Your task to perform on an android device: Is it going to rain this weekend? Image 0: 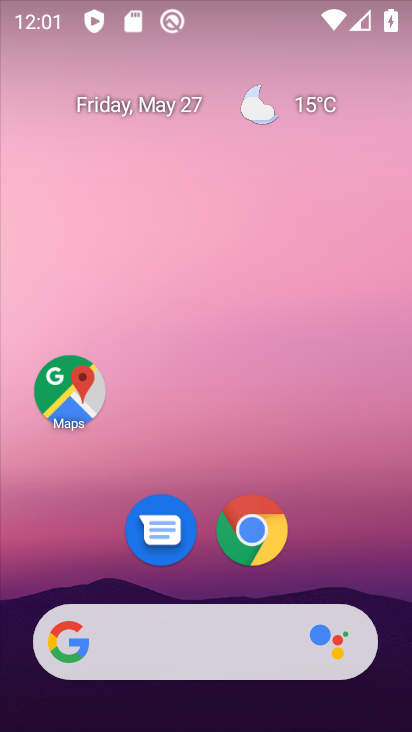
Step 0: click (285, 106)
Your task to perform on an android device: Is it going to rain this weekend? Image 1: 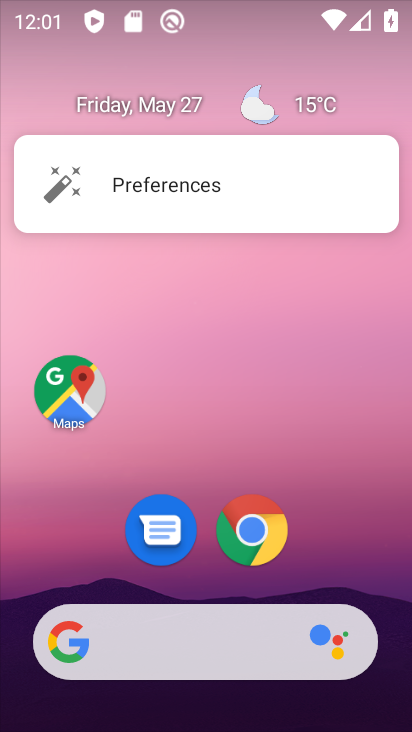
Step 1: click (293, 112)
Your task to perform on an android device: Is it going to rain this weekend? Image 2: 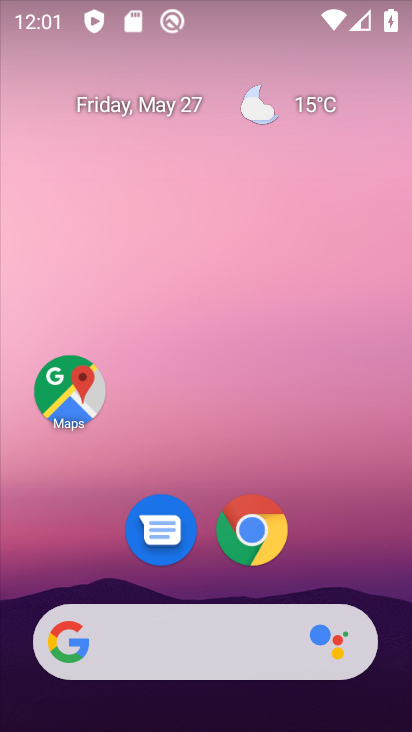
Step 2: click (308, 94)
Your task to perform on an android device: Is it going to rain this weekend? Image 3: 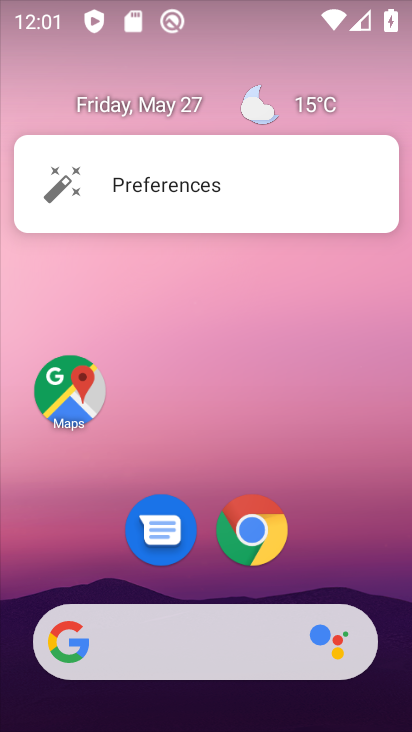
Step 3: click (318, 84)
Your task to perform on an android device: Is it going to rain this weekend? Image 4: 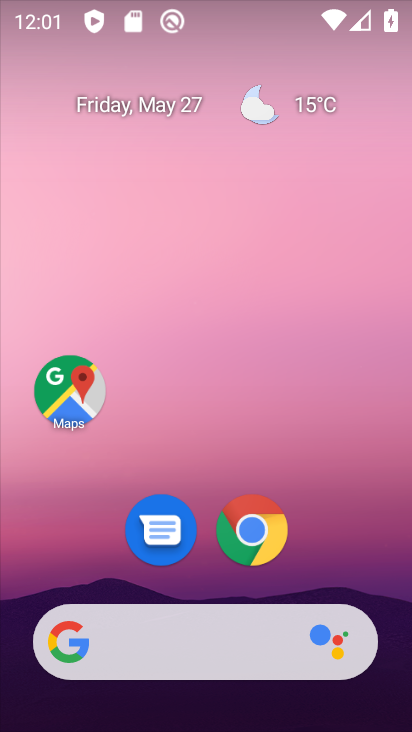
Step 4: click (315, 106)
Your task to perform on an android device: Is it going to rain this weekend? Image 5: 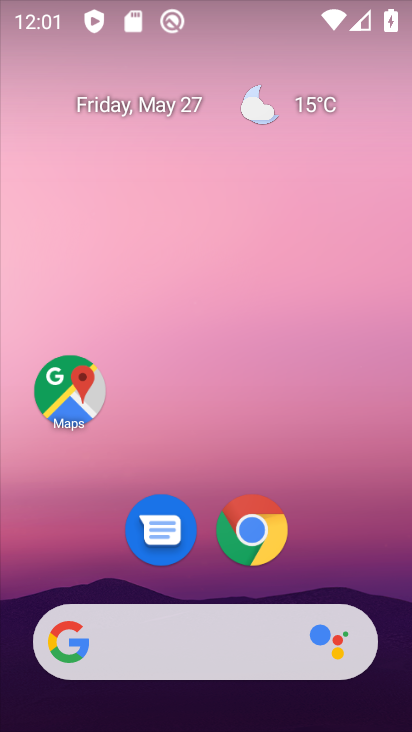
Step 5: click (297, 112)
Your task to perform on an android device: Is it going to rain this weekend? Image 6: 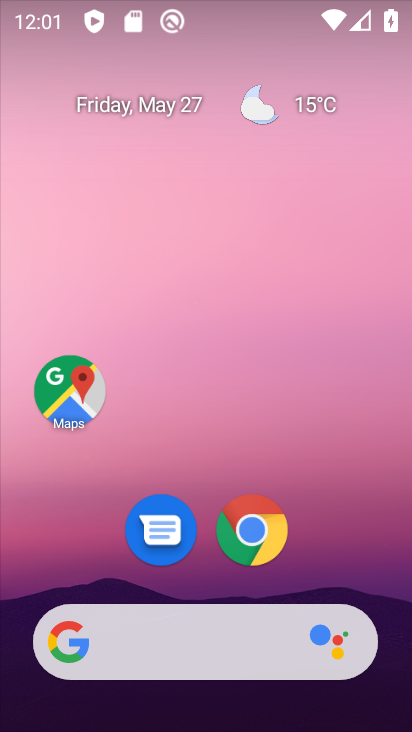
Step 6: click (290, 112)
Your task to perform on an android device: Is it going to rain this weekend? Image 7: 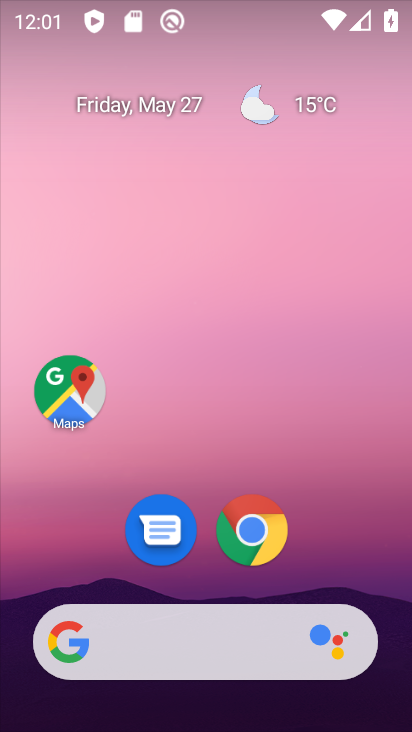
Step 7: click (275, 110)
Your task to perform on an android device: Is it going to rain this weekend? Image 8: 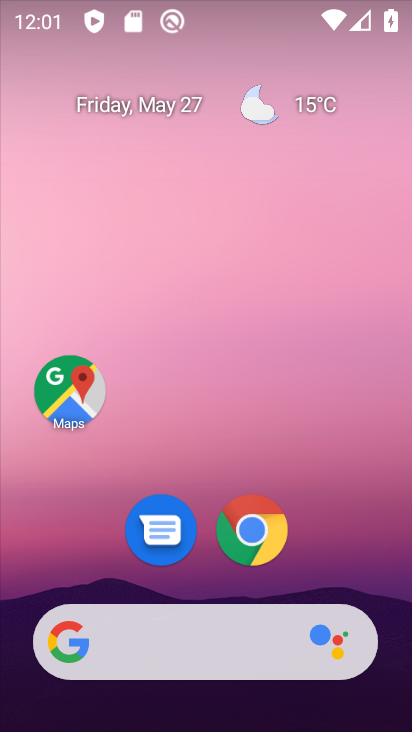
Step 8: click (313, 107)
Your task to perform on an android device: Is it going to rain this weekend? Image 9: 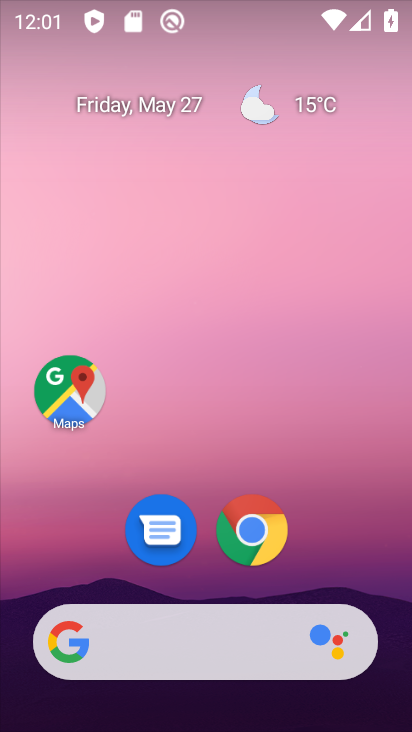
Step 9: click (313, 107)
Your task to perform on an android device: Is it going to rain this weekend? Image 10: 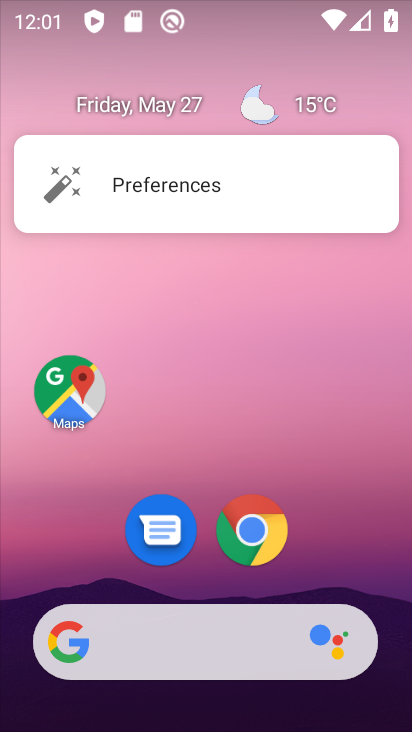
Step 10: click (277, 124)
Your task to perform on an android device: Is it going to rain this weekend? Image 11: 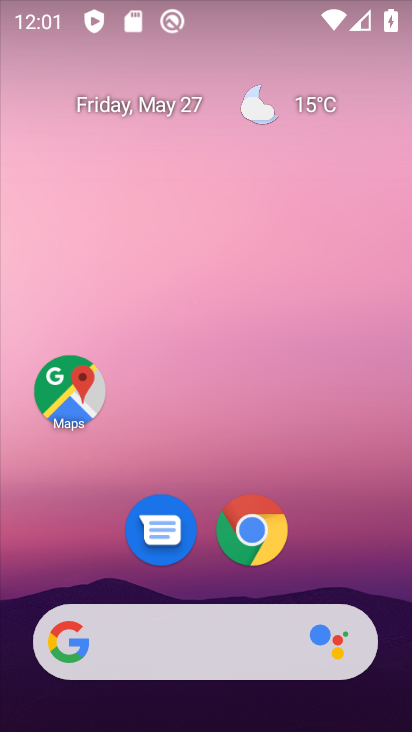
Step 11: click (275, 111)
Your task to perform on an android device: Is it going to rain this weekend? Image 12: 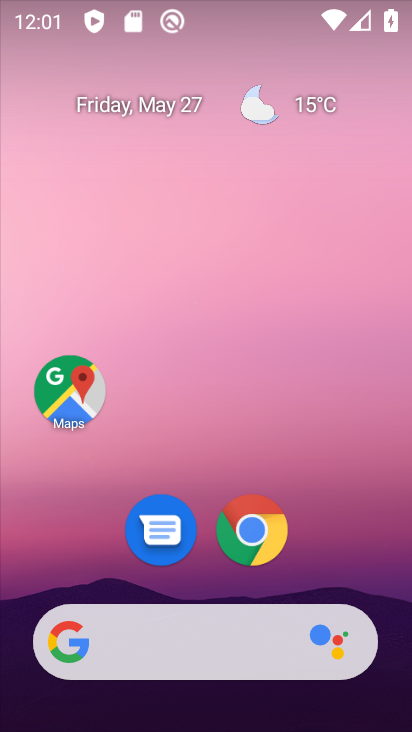
Step 12: click (307, 96)
Your task to perform on an android device: Is it going to rain this weekend? Image 13: 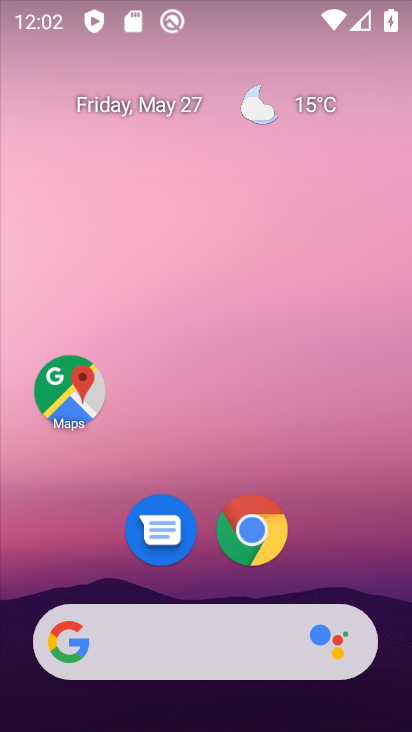
Step 13: drag from (2, 243) to (399, 229)
Your task to perform on an android device: Is it going to rain this weekend? Image 14: 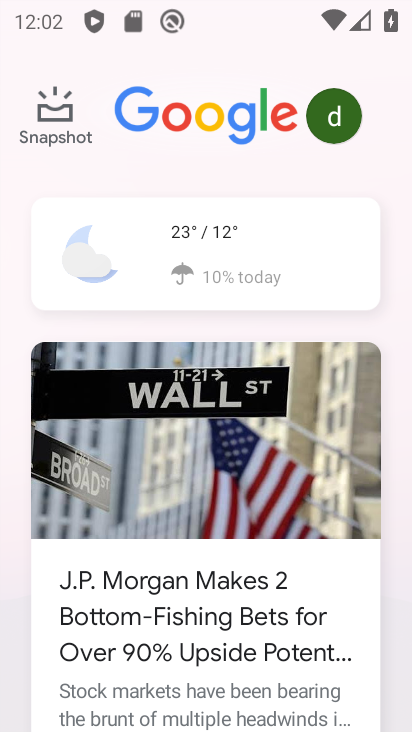
Step 14: click (163, 273)
Your task to perform on an android device: Is it going to rain this weekend? Image 15: 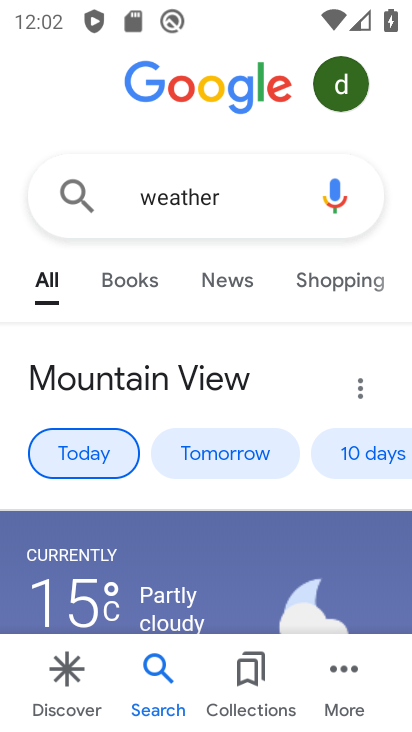
Step 15: click (376, 453)
Your task to perform on an android device: Is it going to rain this weekend? Image 16: 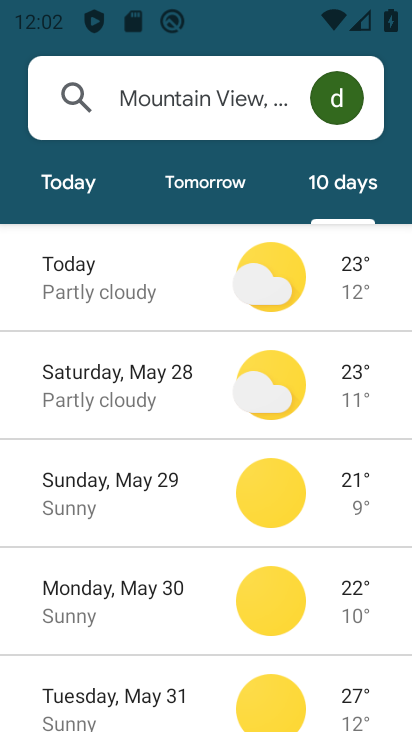
Step 16: task complete